Your task to perform on an android device: set the timer Image 0: 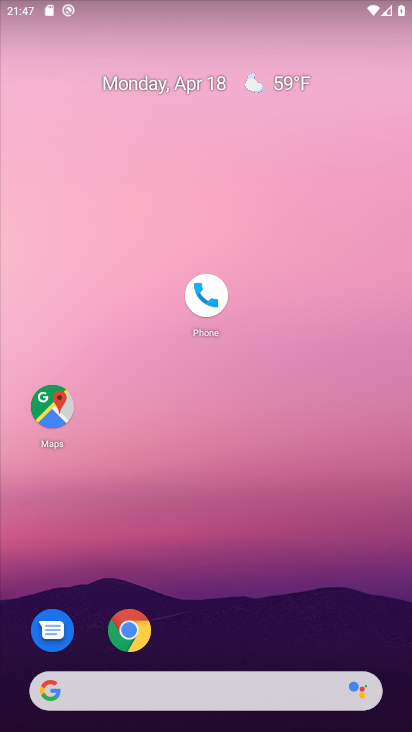
Step 0: click (367, 147)
Your task to perform on an android device: set the timer Image 1: 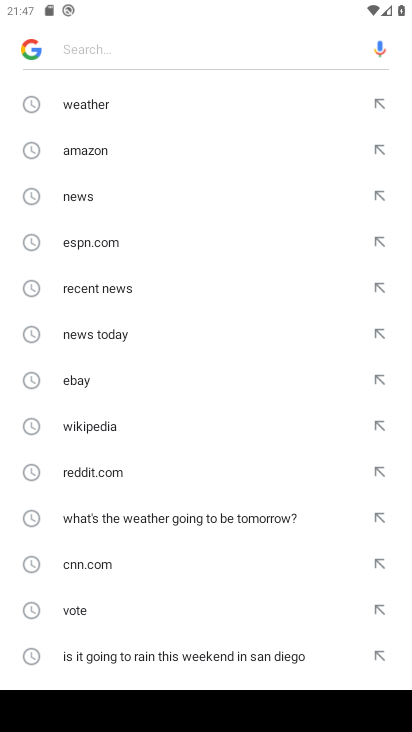
Step 1: press home button
Your task to perform on an android device: set the timer Image 2: 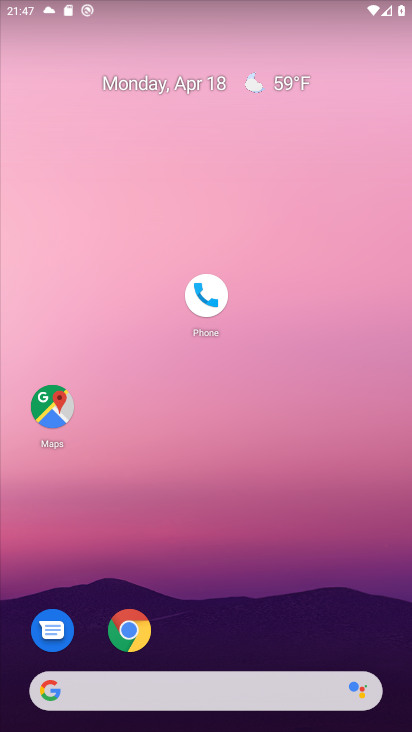
Step 2: drag from (248, 638) to (317, 190)
Your task to perform on an android device: set the timer Image 3: 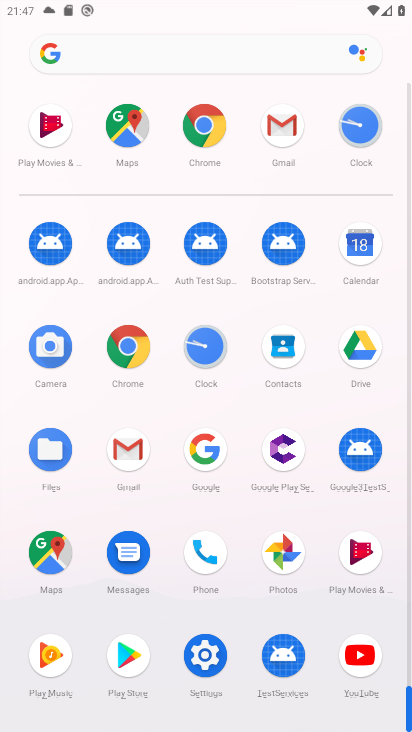
Step 3: click (204, 353)
Your task to perform on an android device: set the timer Image 4: 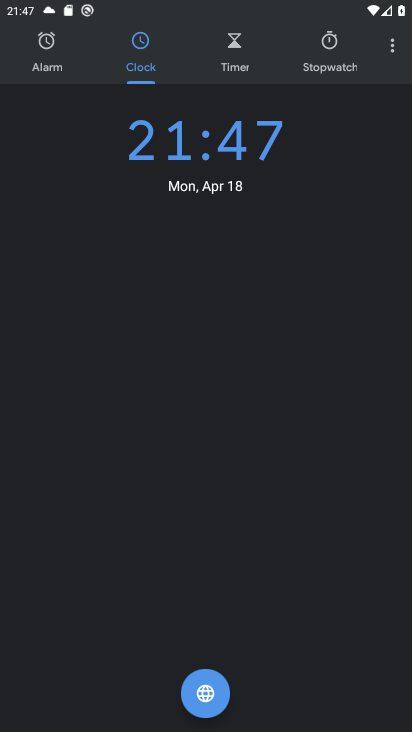
Step 4: click (254, 43)
Your task to perform on an android device: set the timer Image 5: 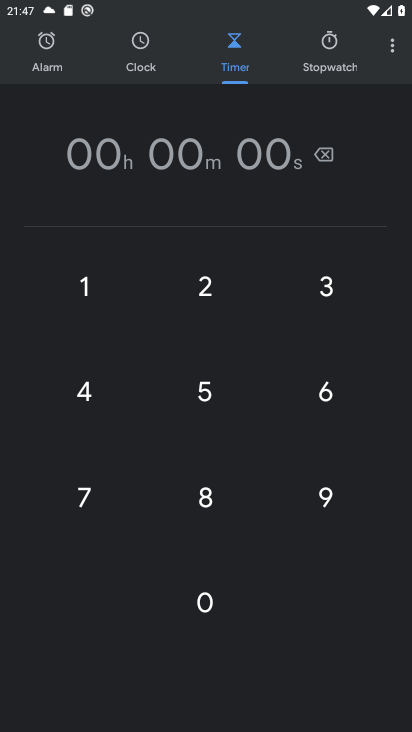
Step 5: click (205, 384)
Your task to perform on an android device: set the timer Image 6: 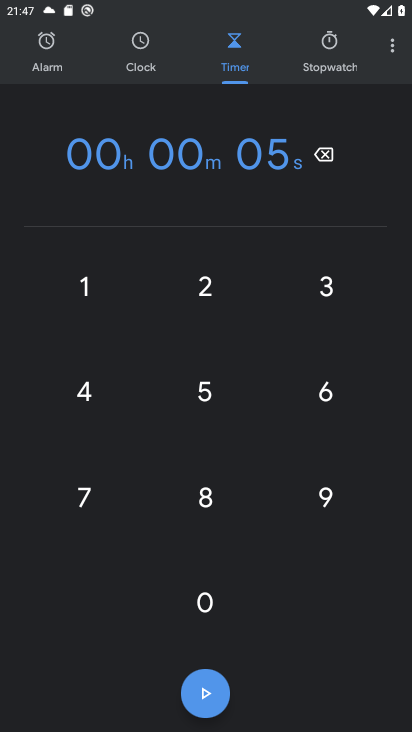
Step 6: task complete